Your task to perform on an android device: Go to display settings Image 0: 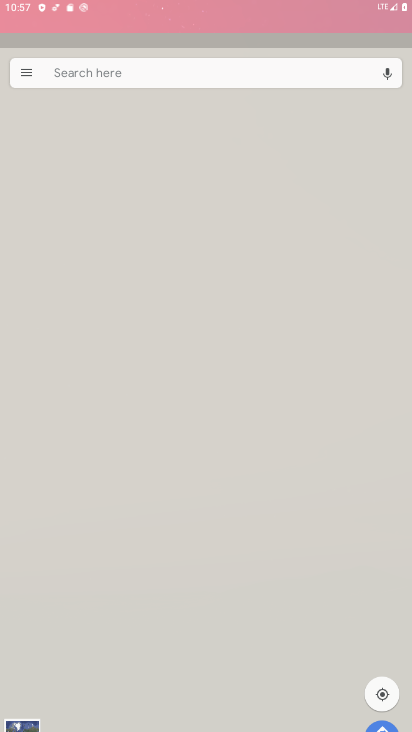
Step 0: click (172, 16)
Your task to perform on an android device: Go to display settings Image 1: 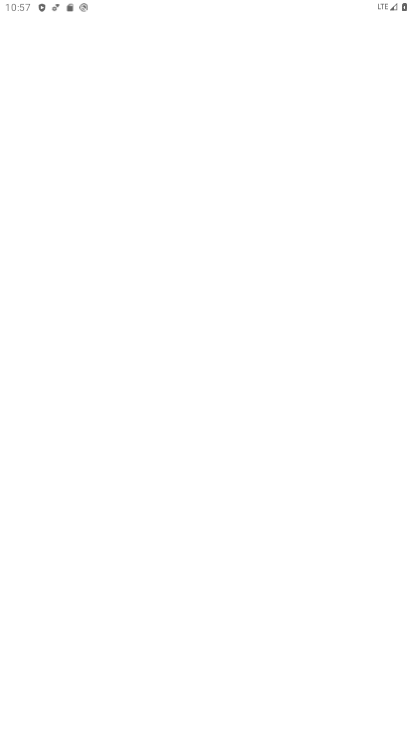
Step 1: click (193, 5)
Your task to perform on an android device: Go to display settings Image 2: 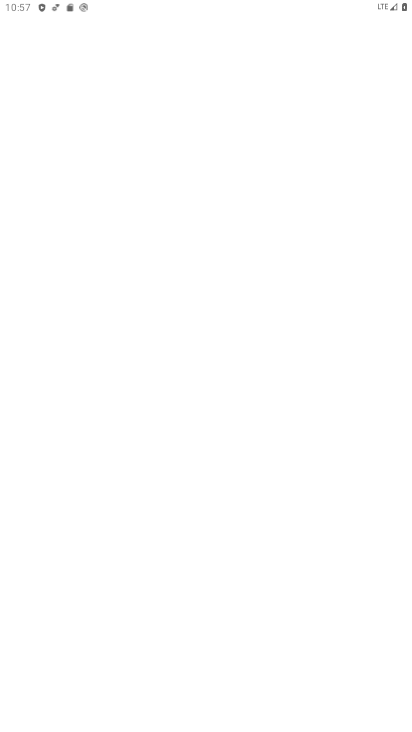
Step 2: press back button
Your task to perform on an android device: Go to display settings Image 3: 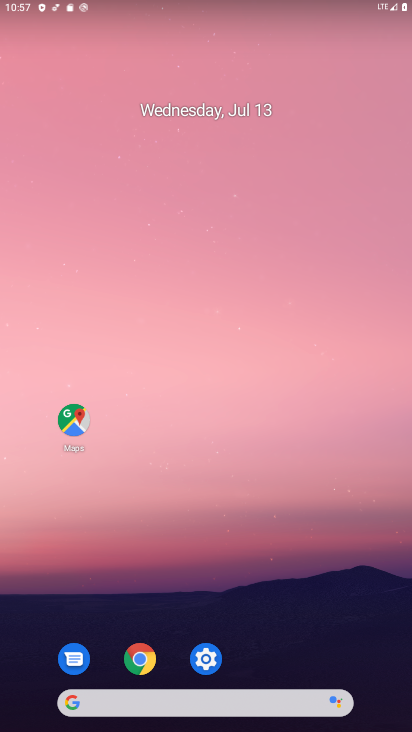
Step 3: drag from (269, 363) to (211, 98)
Your task to perform on an android device: Go to display settings Image 4: 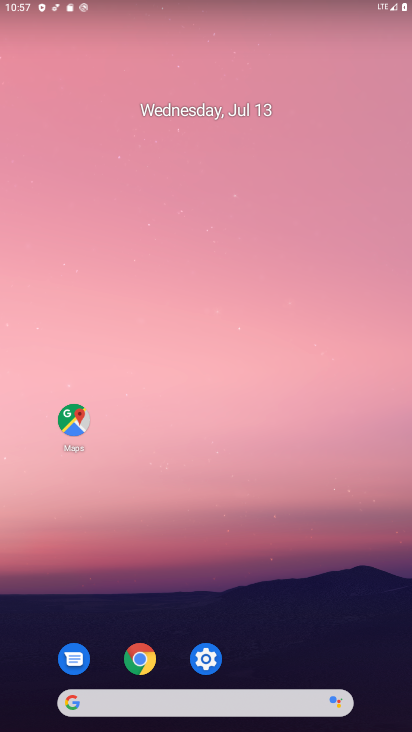
Step 4: click (152, 97)
Your task to perform on an android device: Go to display settings Image 5: 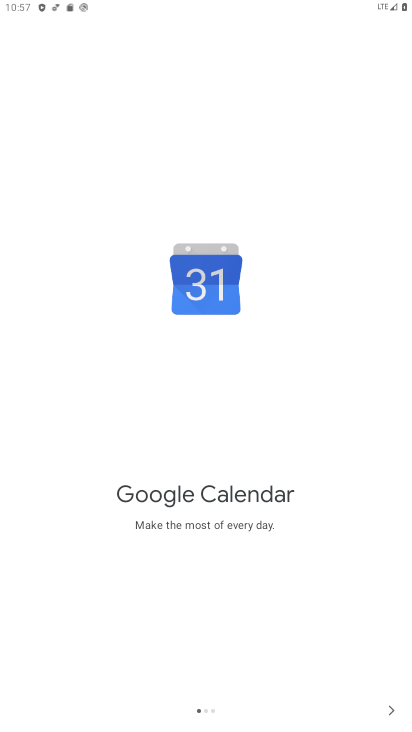
Step 5: click (390, 700)
Your task to perform on an android device: Go to display settings Image 6: 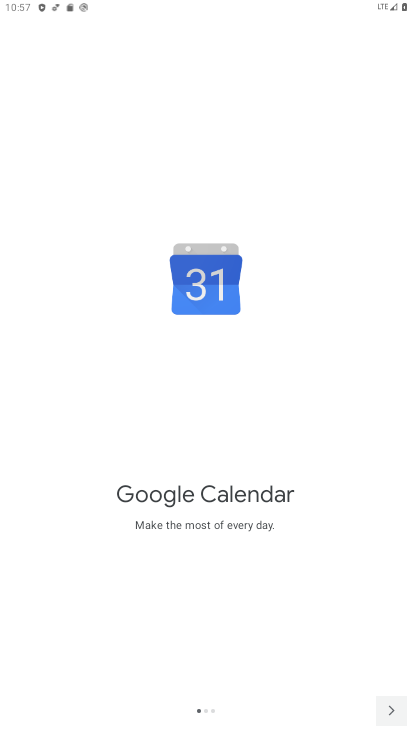
Step 6: click (390, 699)
Your task to perform on an android device: Go to display settings Image 7: 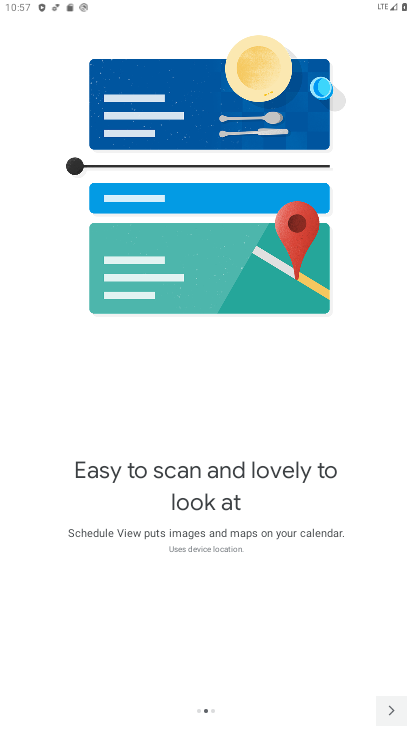
Step 7: click (390, 701)
Your task to perform on an android device: Go to display settings Image 8: 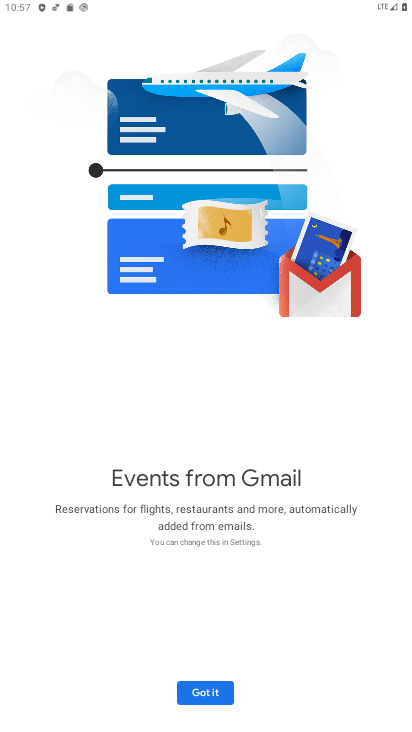
Step 8: click (224, 694)
Your task to perform on an android device: Go to display settings Image 9: 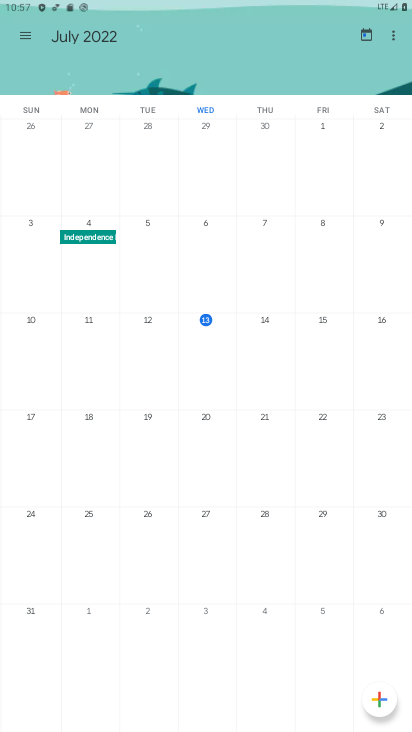
Step 9: press back button
Your task to perform on an android device: Go to display settings Image 10: 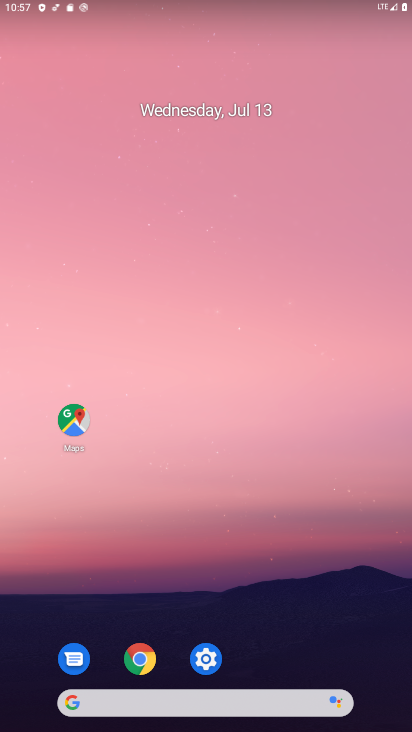
Step 10: click (217, 663)
Your task to perform on an android device: Go to display settings Image 11: 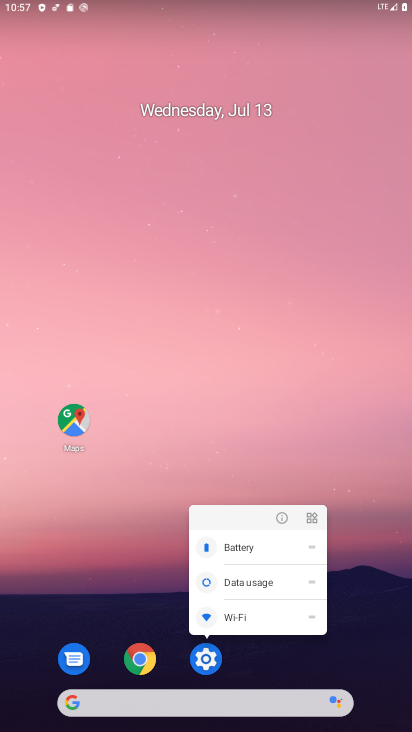
Step 11: click (218, 661)
Your task to perform on an android device: Go to display settings Image 12: 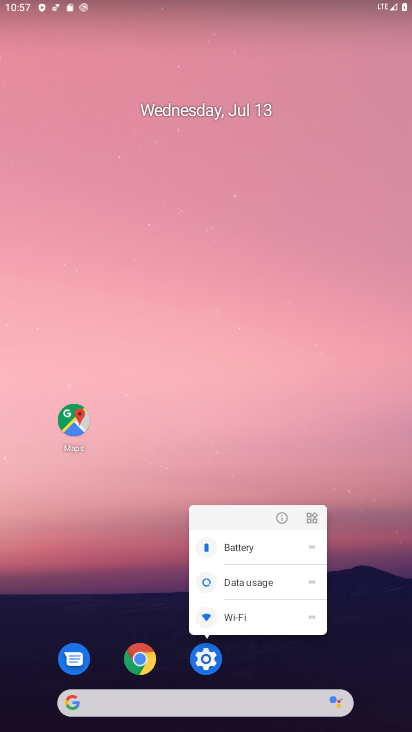
Step 12: click (216, 653)
Your task to perform on an android device: Go to display settings Image 13: 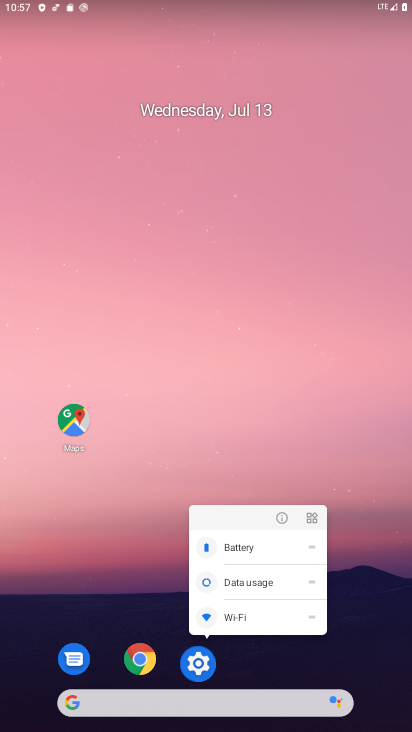
Step 13: click (208, 658)
Your task to perform on an android device: Go to display settings Image 14: 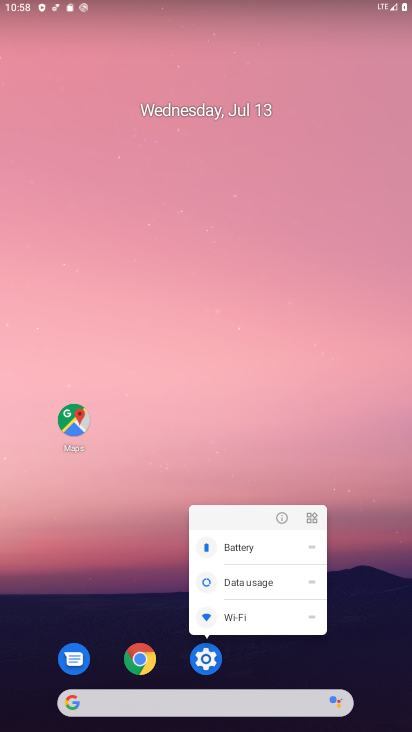
Step 14: click (199, 658)
Your task to perform on an android device: Go to display settings Image 15: 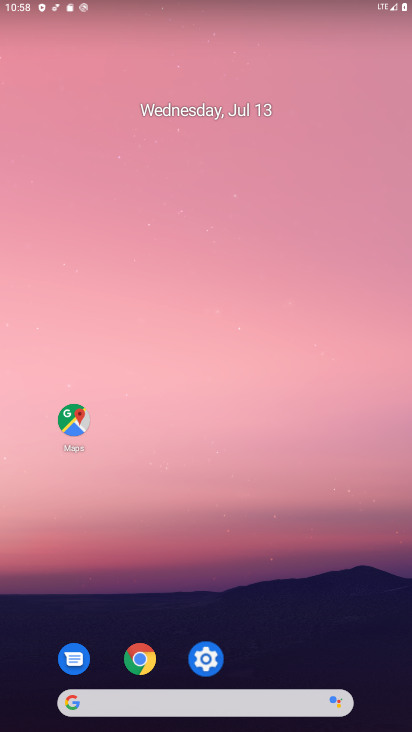
Step 15: click (202, 654)
Your task to perform on an android device: Go to display settings Image 16: 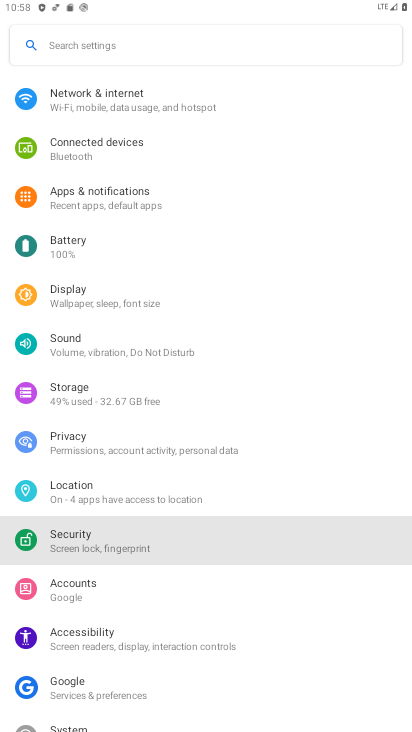
Step 16: click (201, 654)
Your task to perform on an android device: Go to display settings Image 17: 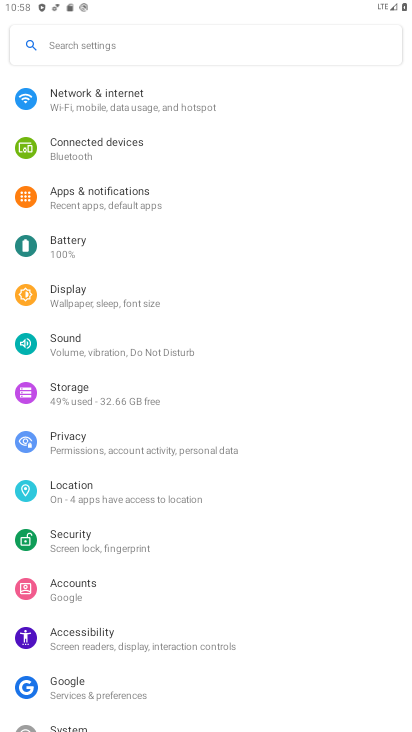
Step 17: click (201, 654)
Your task to perform on an android device: Go to display settings Image 18: 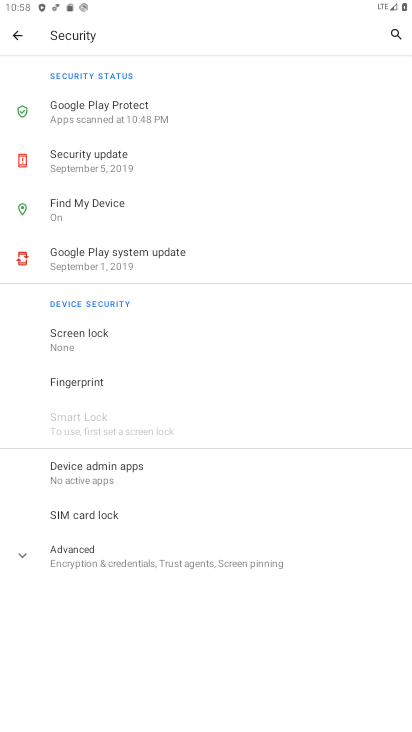
Step 18: click (14, 32)
Your task to perform on an android device: Go to display settings Image 19: 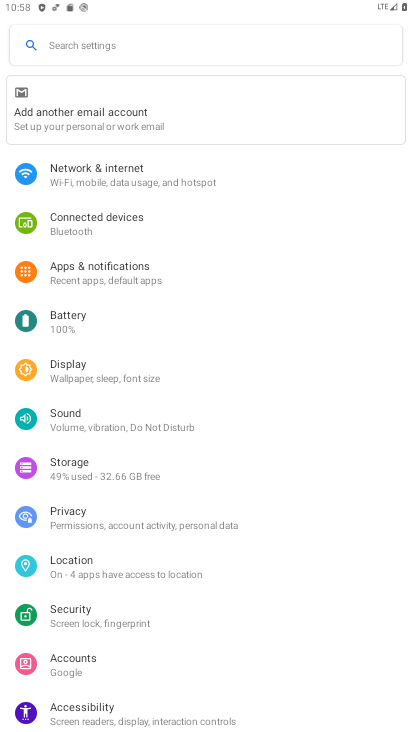
Step 19: click (69, 371)
Your task to perform on an android device: Go to display settings Image 20: 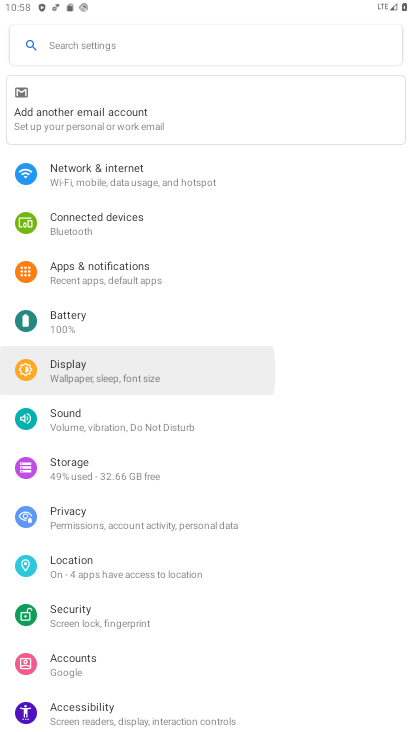
Step 20: click (69, 371)
Your task to perform on an android device: Go to display settings Image 21: 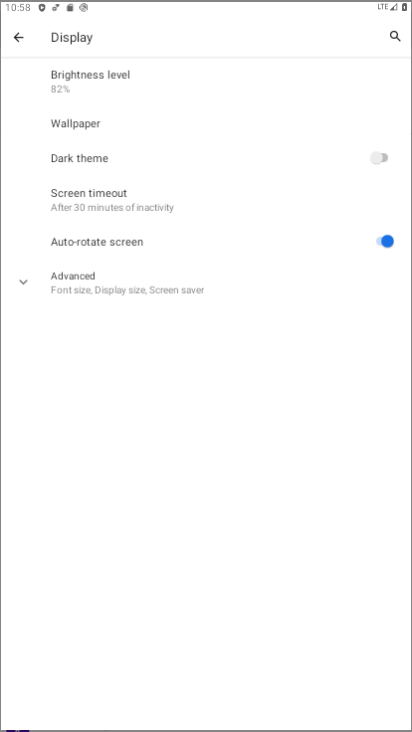
Step 21: click (69, 371)
Your task to perform on an android device: Go to display settings Image 22: 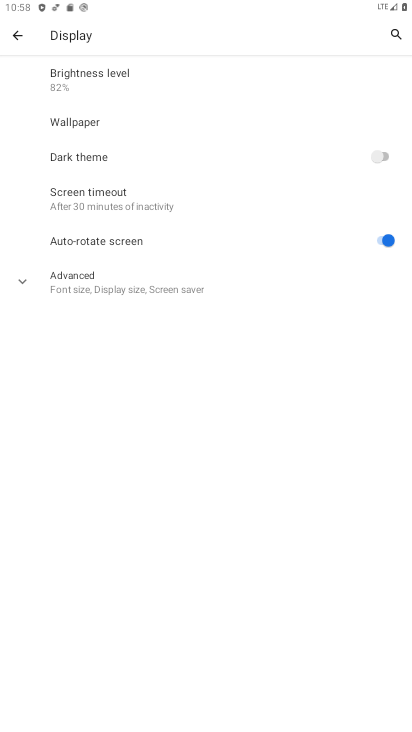
Step 22: click (69, 371)
Your task to perform on an android device: Go to display settings Image 23: 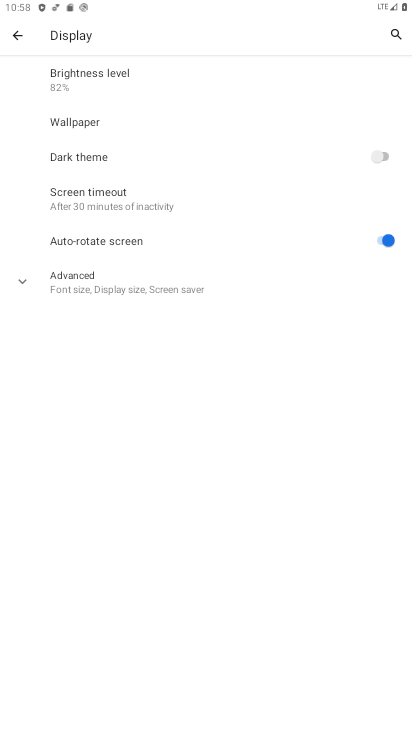
Step 23: task complete